Your task to perform on an android device: turn off data saver in the chrome app Image 0: 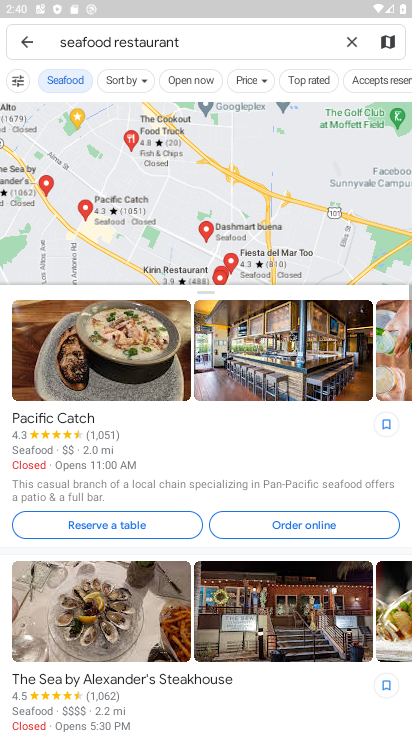
Step 0: press home button
Your task to perform on an android device: turn off data saver in the chrome app Image 1: 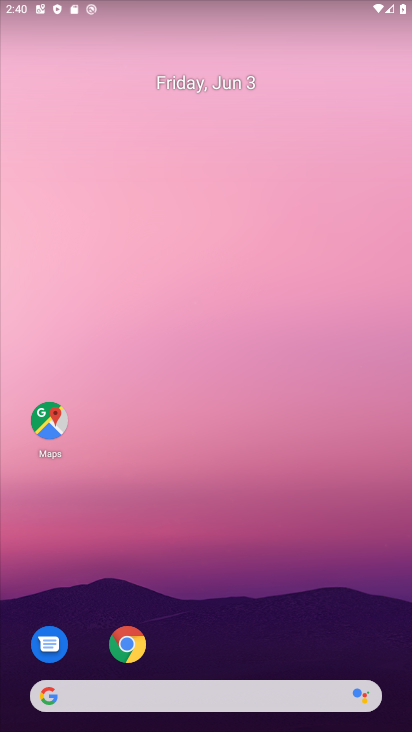
Step 1: click (111, 638)
Your task to perform on an android device: turn off data saver in the chrome app Image 2: 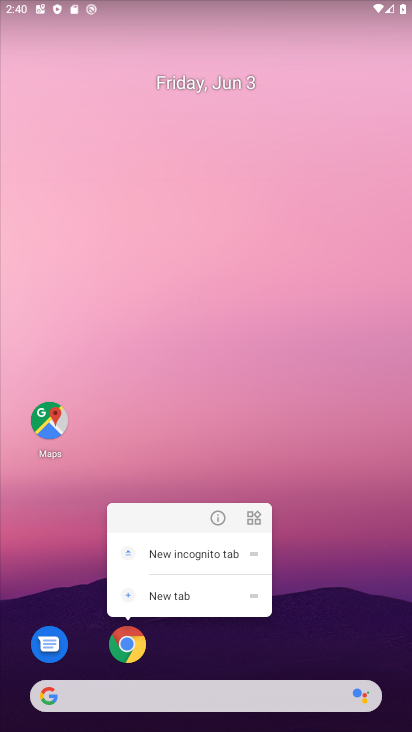
Step 2: click (124, 632)
Your task to perform on an android device: turn off data saver in the chrome app Image 3: 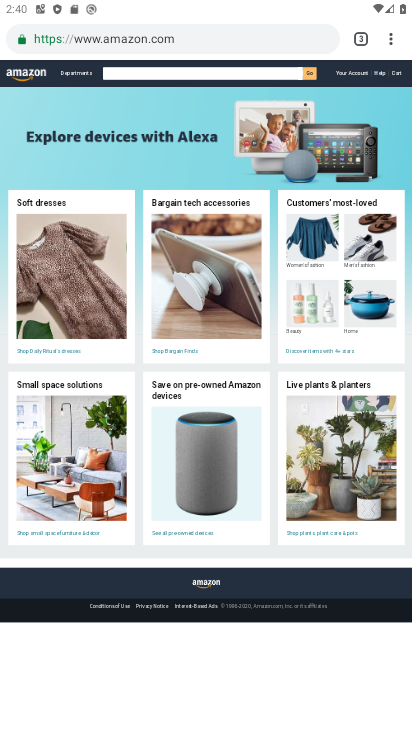
Step 3: click (386, 38)
Your task to perform on an android device: turn off data saver in the chrome app Image 4: 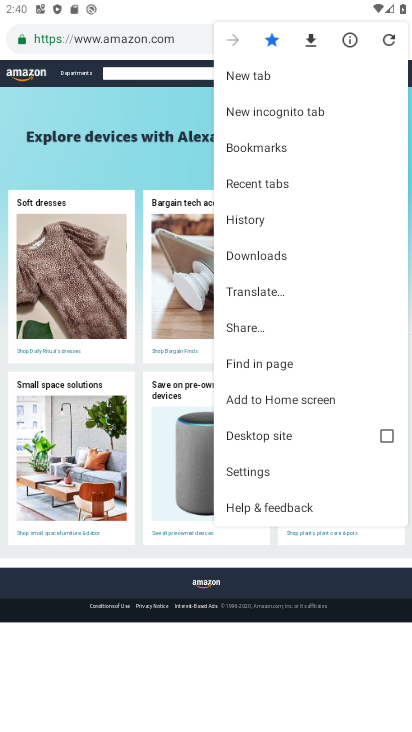
Step 4: click (281, 467)
Your task to perform on an android device: turn off data saver in the chrome app Image 5: 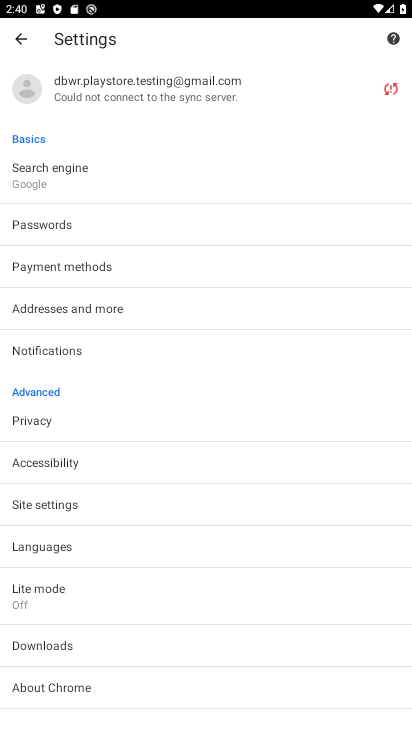
Step 5: click (85, 591)
Your task to perform on an android device: turn off data saver in the chrome app Image 6: 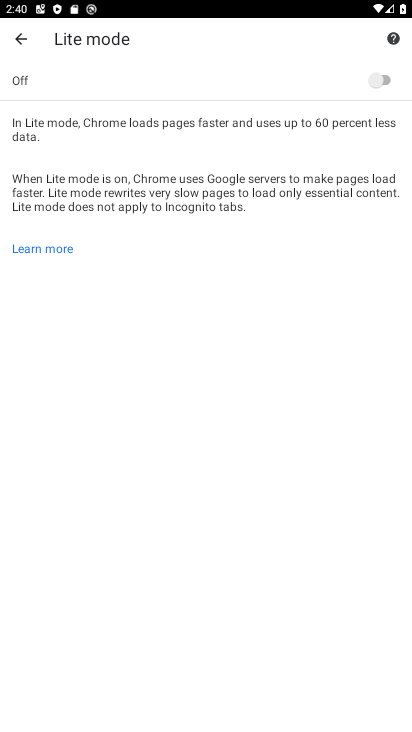
Step 6: task complete